Your task to perform on an android device: turn off sleep mode Image 0: 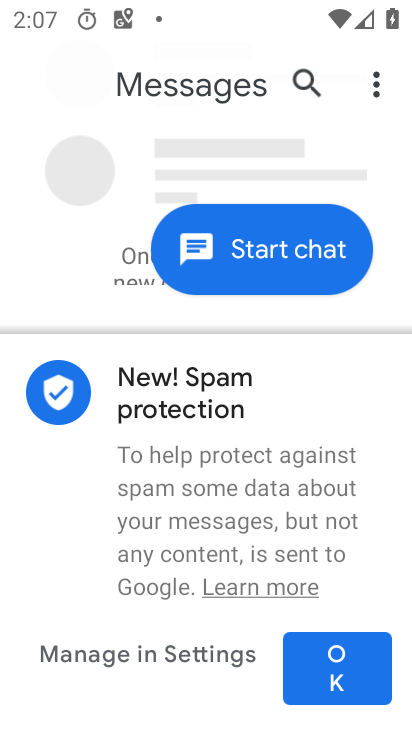
Step 0: press home button
Your task to perform on an android device: turn off sleep mode Image 1: 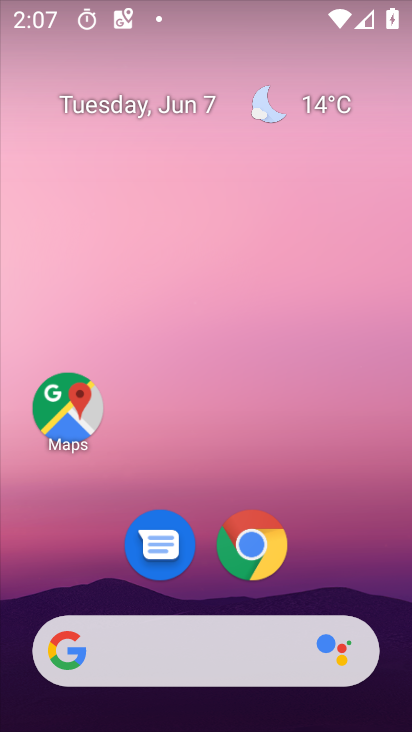
Step 1: drag from (333, 553) to (265, 20)
Your task to perform on an android device: turn off sleep mode Image 2: 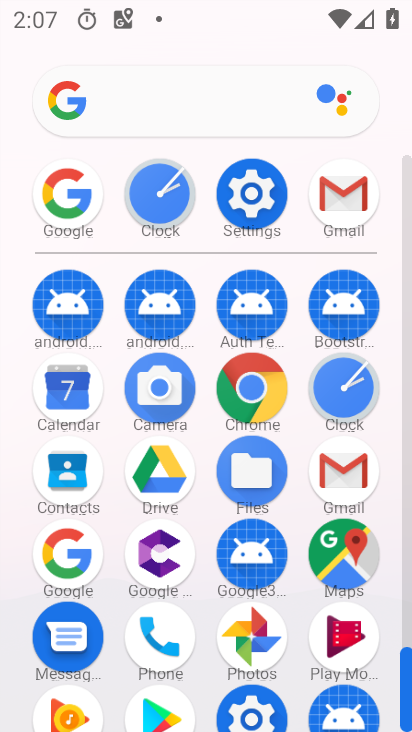
Step 2: click (253, 206)
Your task to perform on an android device: turn off sleep mode Image 3: 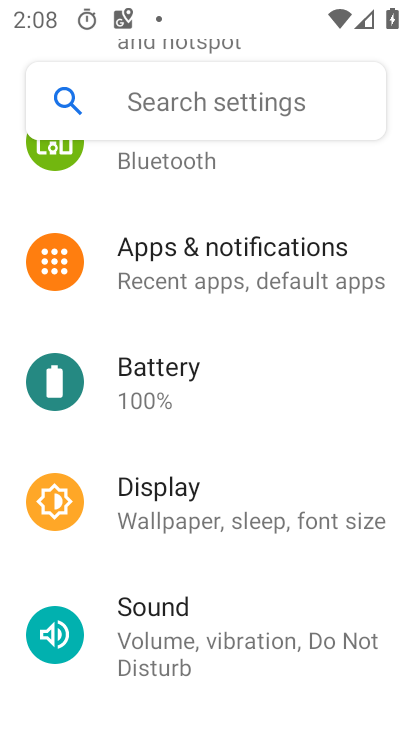
Step 3: click (266, 489)
Your task to perform on an android device: turn off sleep mode Image 4: 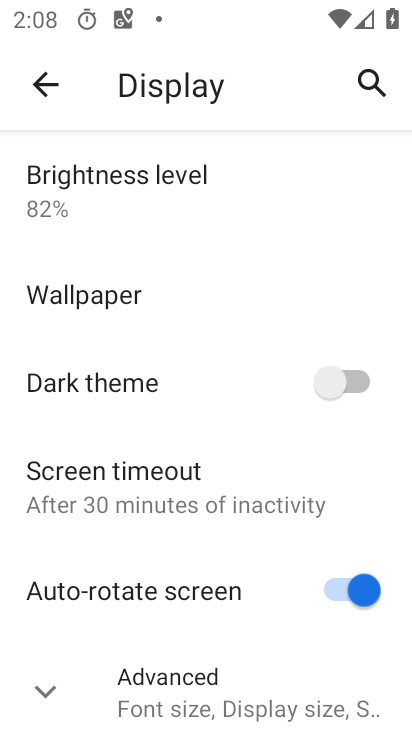
Step 4: task complete